Your task to perform on an android device: turn off airplane mode Image 0: 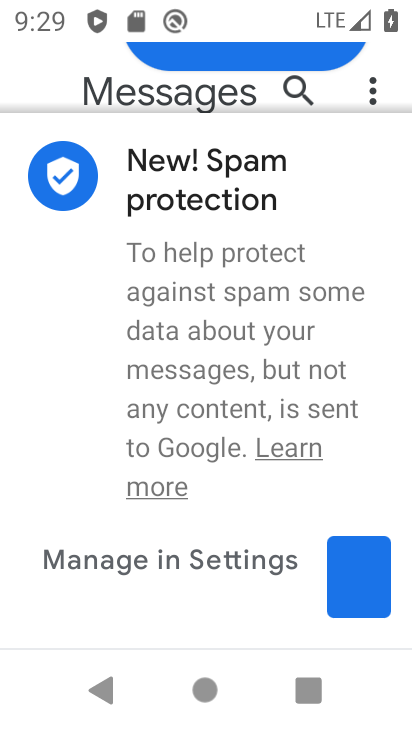
Step 0: press home button
Your task to perform on an android device: turn off airplane mode Image 1: 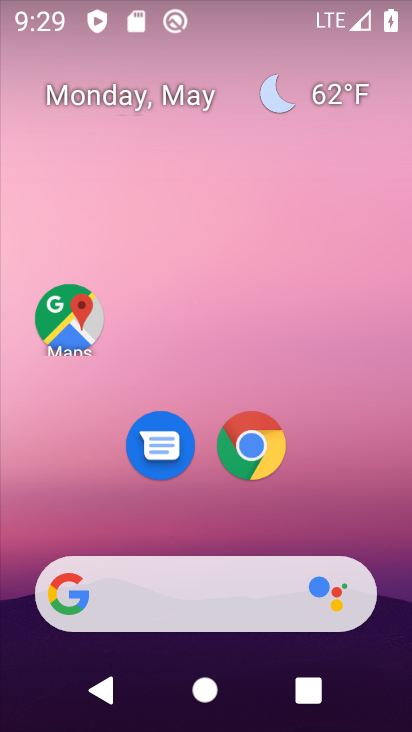
Step 1: task complete